Your task to perform on an android device: Open Google Chrome and click the shortcut for Amazon.com Image 0: 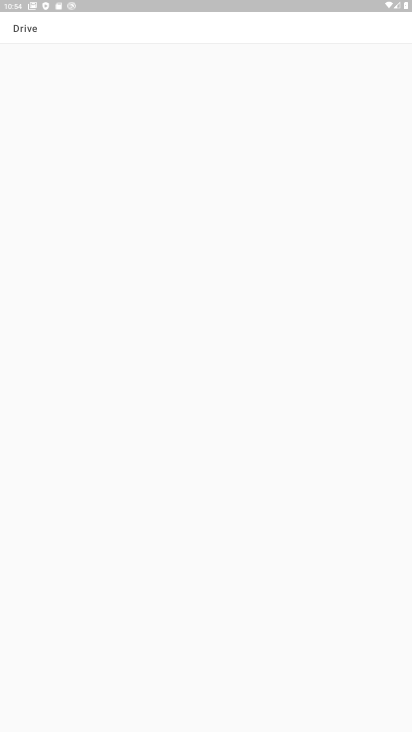
Step 0: press home button
Your task to perform on an android device: Open Google Chrome and click the shortcut for Amazon.com Image 1: 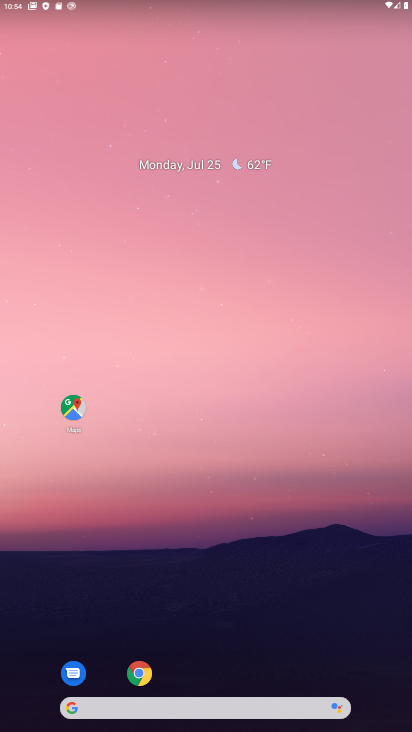
Step 1: click (144, 670)
Your task to perform on an android device: Open Google Chrome and click the shortcut for Amazon.com Image 2: 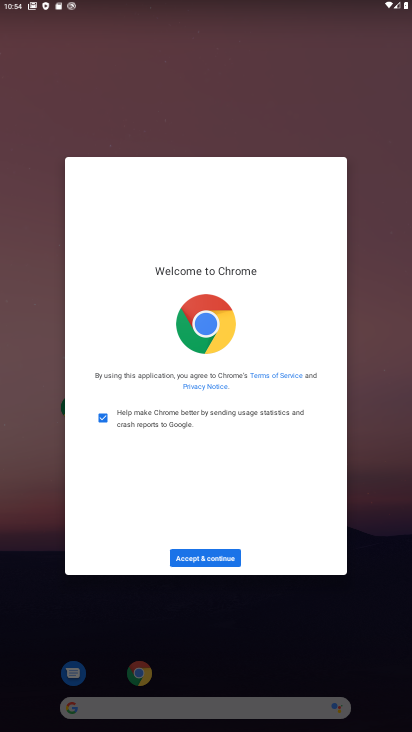
Step 2: click (200, 559)
Your task to perform on an android device: Open Google Chrome and click the shortcut for Amazon.com Image 3: 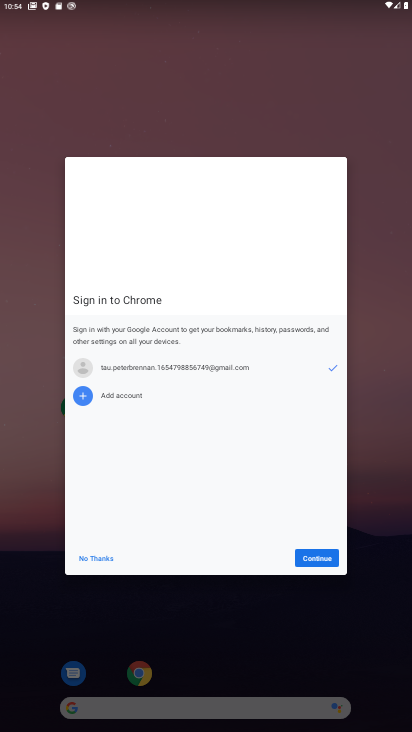
Step 3: click (321, 559)
Your task to perform on an android device: Open Google Chrome and click the shortcut for Amazon.com Image 4: 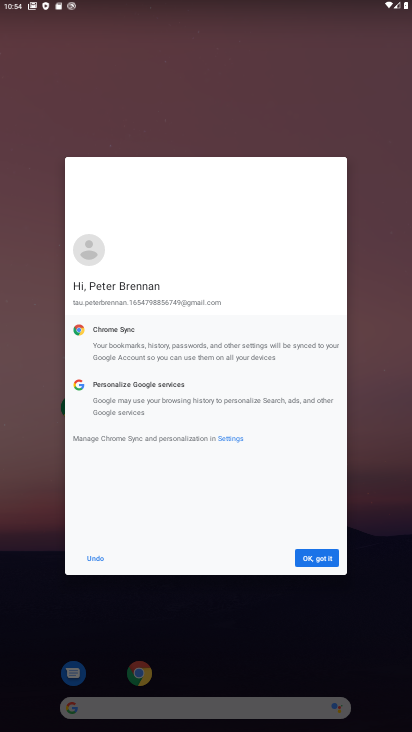
Step 4: click (321, 559)
Your task to perform on an android device: Open Google Chrome and click the shortcut for Amazon.com Image 5: 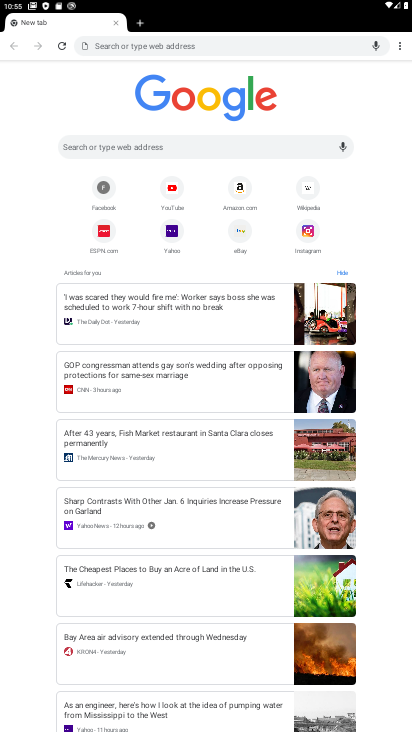
Step 5: click (241, 182)
Your task to perform on an android device: Open Google Chrome and click the shortcut for Amazon.com Image 6: 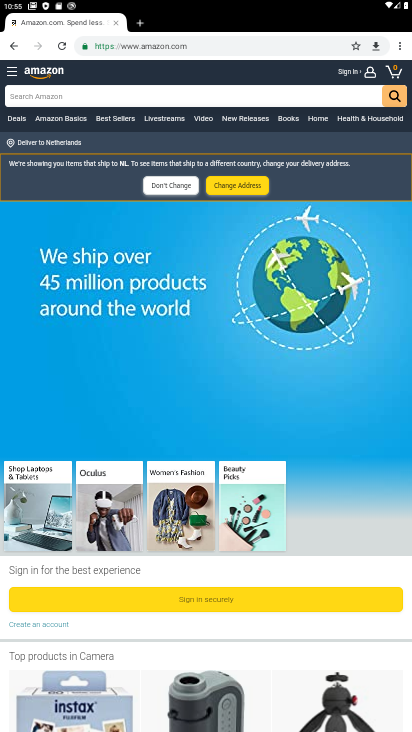
Step 6: task complete